Your task to perform on an android device: turn off wifi Image 0: 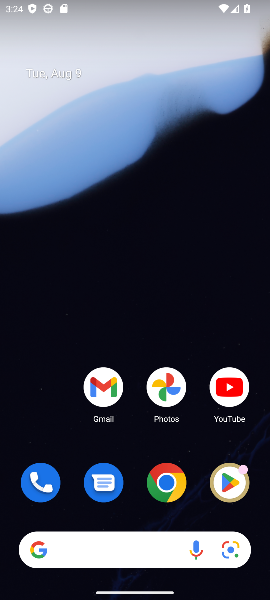
Step 0: drag from (140, 368) to (172, 116)
Your task to perform on an android device: turn off wifi Image 1: 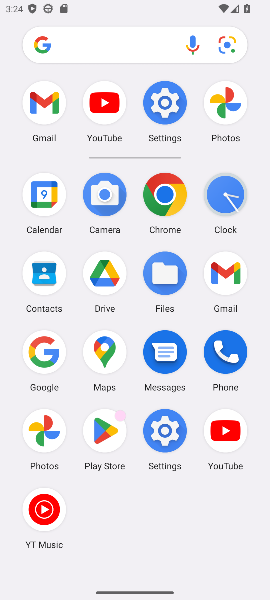
Step 1: click (164, 118)
Your task to perform on an android device: turn off wifi Image 2: 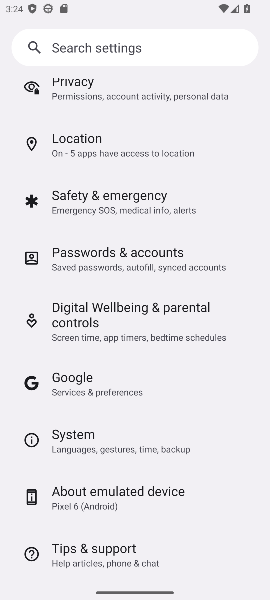
Step 2: drag from (94, 145) to (109, 448)
Your task to perform on an android device: turn off wifi Image 3: 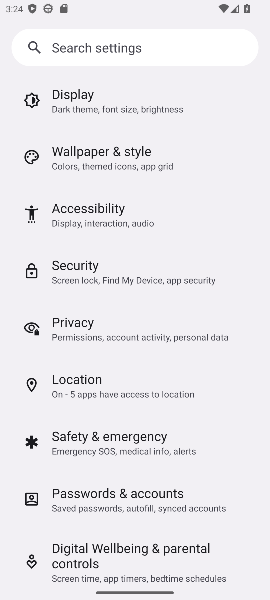
Step 3: drag from (122, 287) to (127, 482)
Your task to perform on an android device: turn off wifi Image 4: 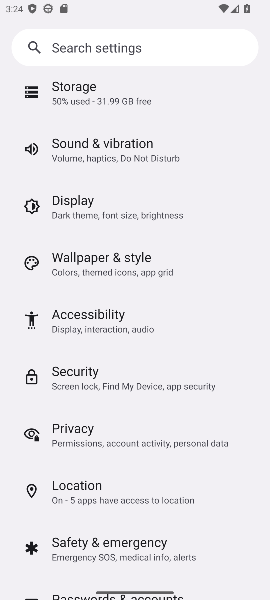
Step 4: drag from (81, 176) to (88, 440)
Your task to perform on an android device: turn off wifi Image 5: 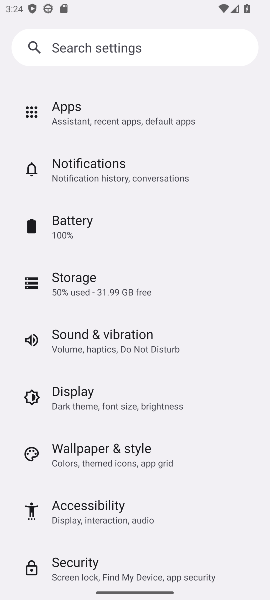
Step 5: drag from (112, 230) to (159, 477)
Your task to perform on an android device: turn off wifi Image 6: 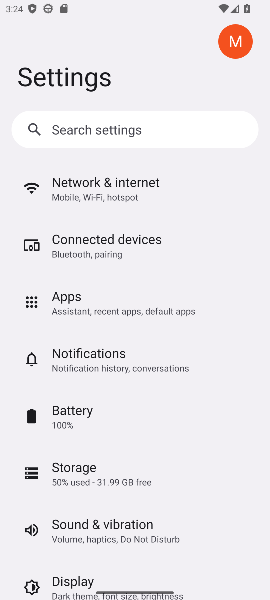
Step 6: click (85, 204)
Your task to perform on an android device: turn off wifi Image 7: 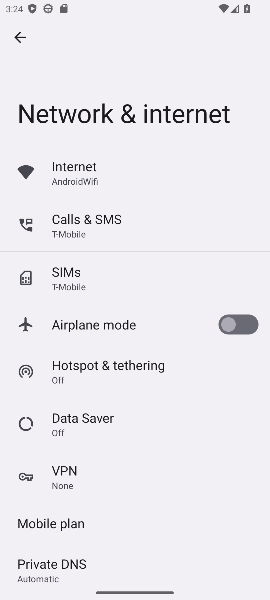
Step 7: click (102, 183)
Your task to perform on an android device: turn off wifi Image 8: 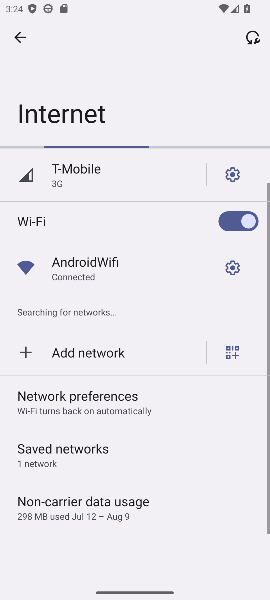
Step 8: click (237, 223)
Your task to perform on an android device: turn off wifi Image 9: 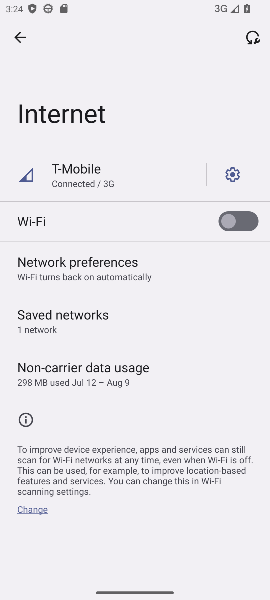
Step 9: task complete